Your task to perform on an android device: Go to sound settings Image 0: 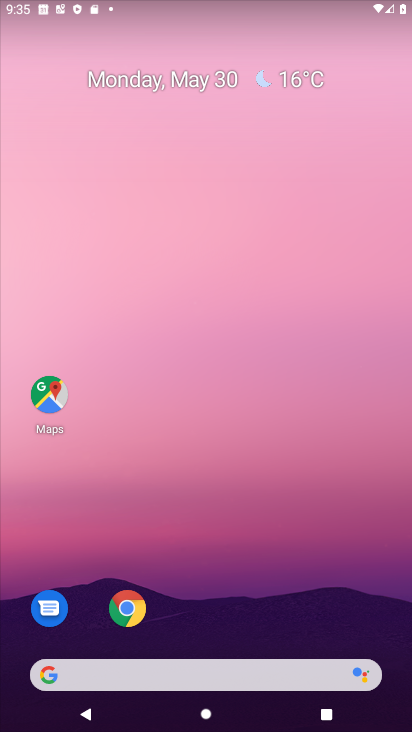
Step 0: click (361, 171)
Your task to perform on an android device: Go to sound settings Image 1: 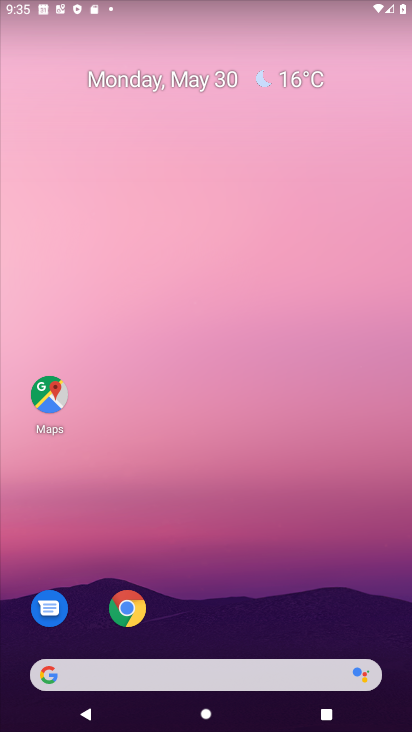
Step 1: drag from (400, 709) to (326, 142)
Your task to perform on an android device: Go to sound settings Image 2: 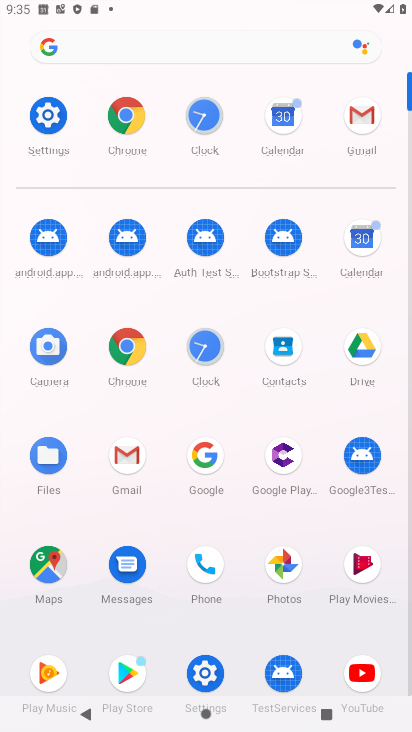
Step 2: click (49, 117)
Your task to perform on an android device: Go to sound settings Image 3: 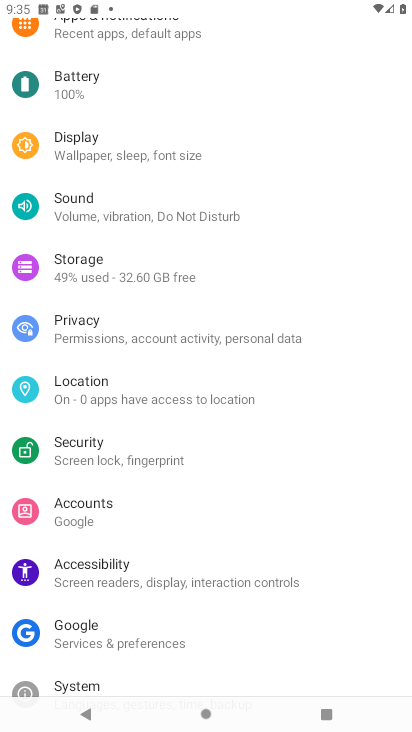
Step 3: click (96, 214)
Your task to perform on an android device: Go to sound settings Image 4: 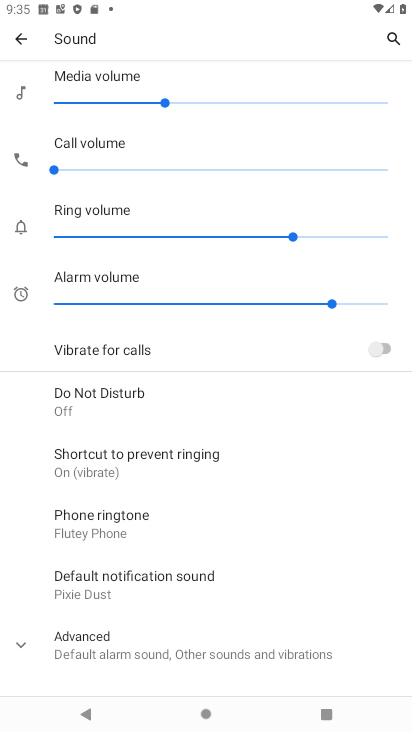
Step 4: task complete